Your task to perform on an android device: open app "McDonald's" (install if not already installed) and go to login screen Image 0: 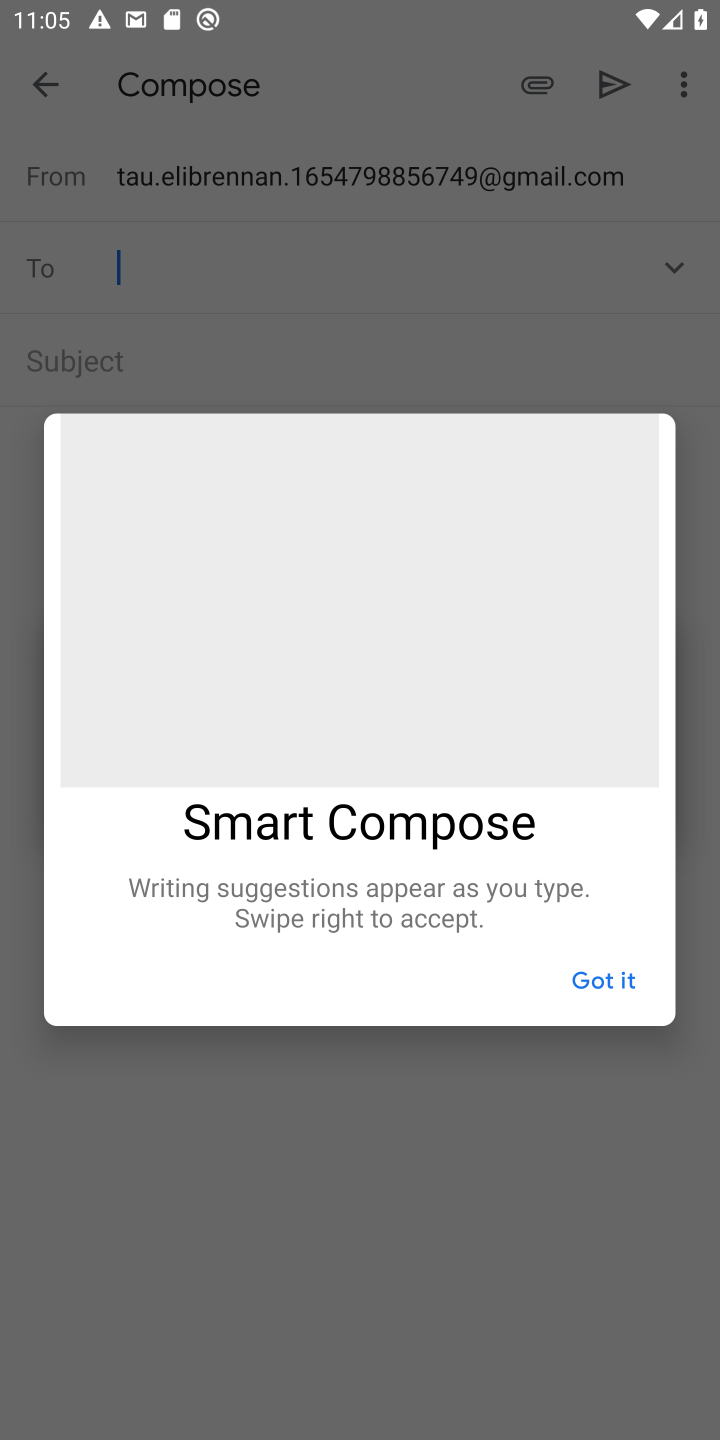
Step 0: press home button
Your task to perform on an android device: open app "McDonald's" (install if not already installed) and go to login screen Image 1: 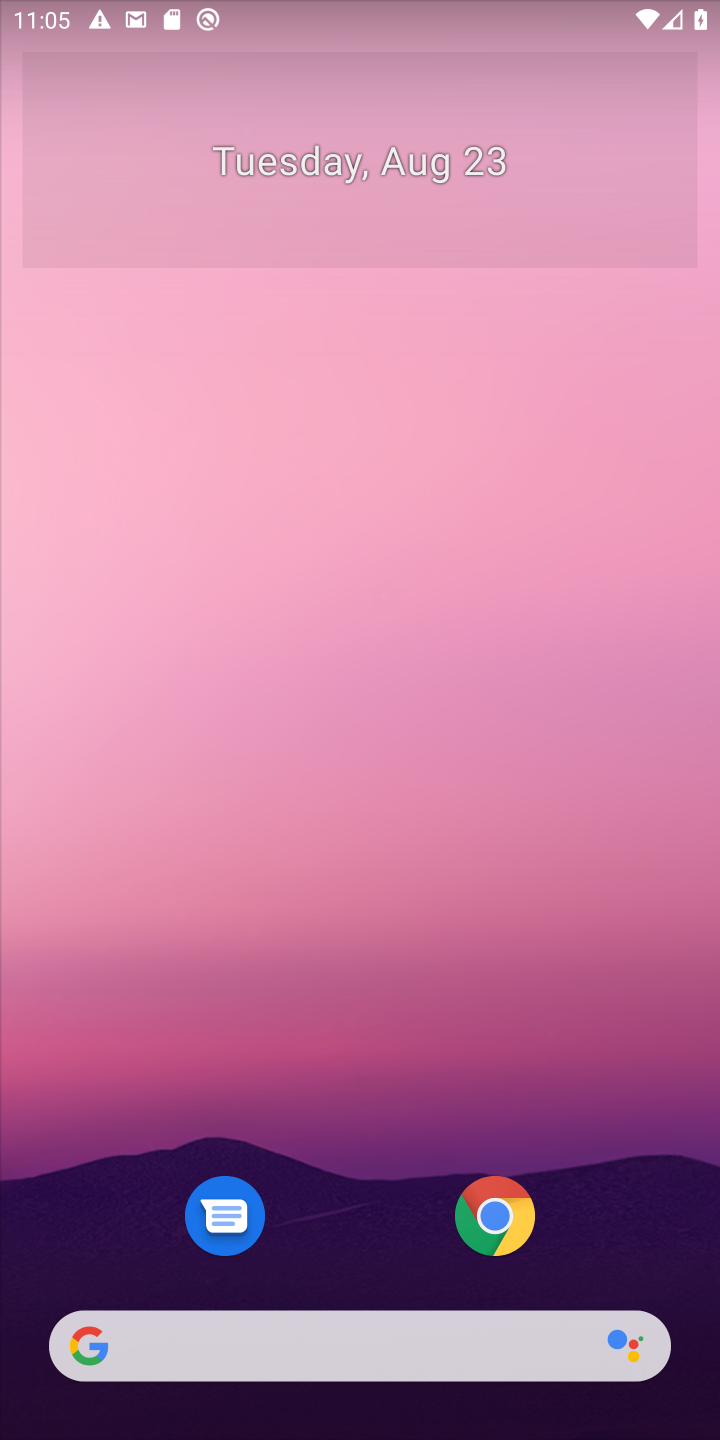
Step 1: drag from (338, 1328) to (481, 206)
Your task to perform on an android device: open app "McDonald's" (install if not already installed) and go to login screen Image 2: 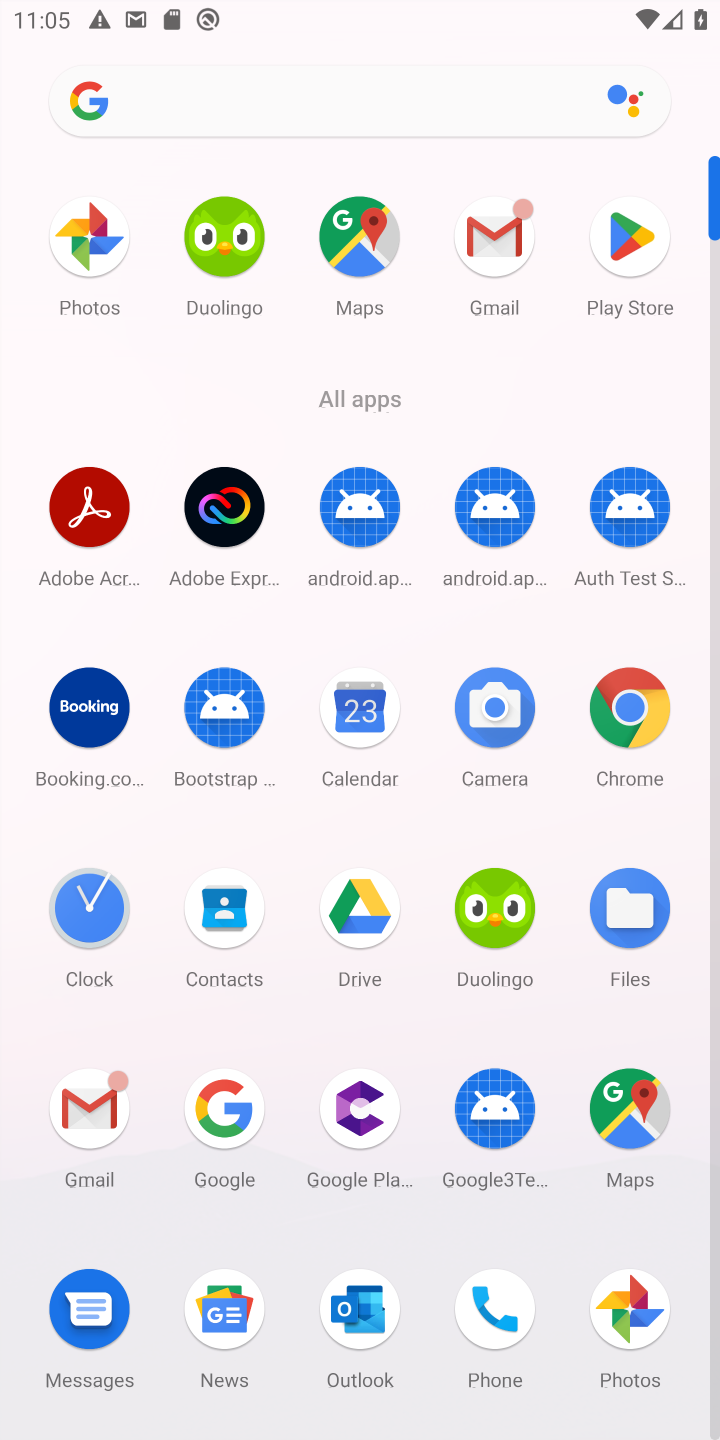
Step 2: click (630, 246)
Your task to perform on an android device: open app "McDonald's" (install if not already installed) and go to login screen Image 3: 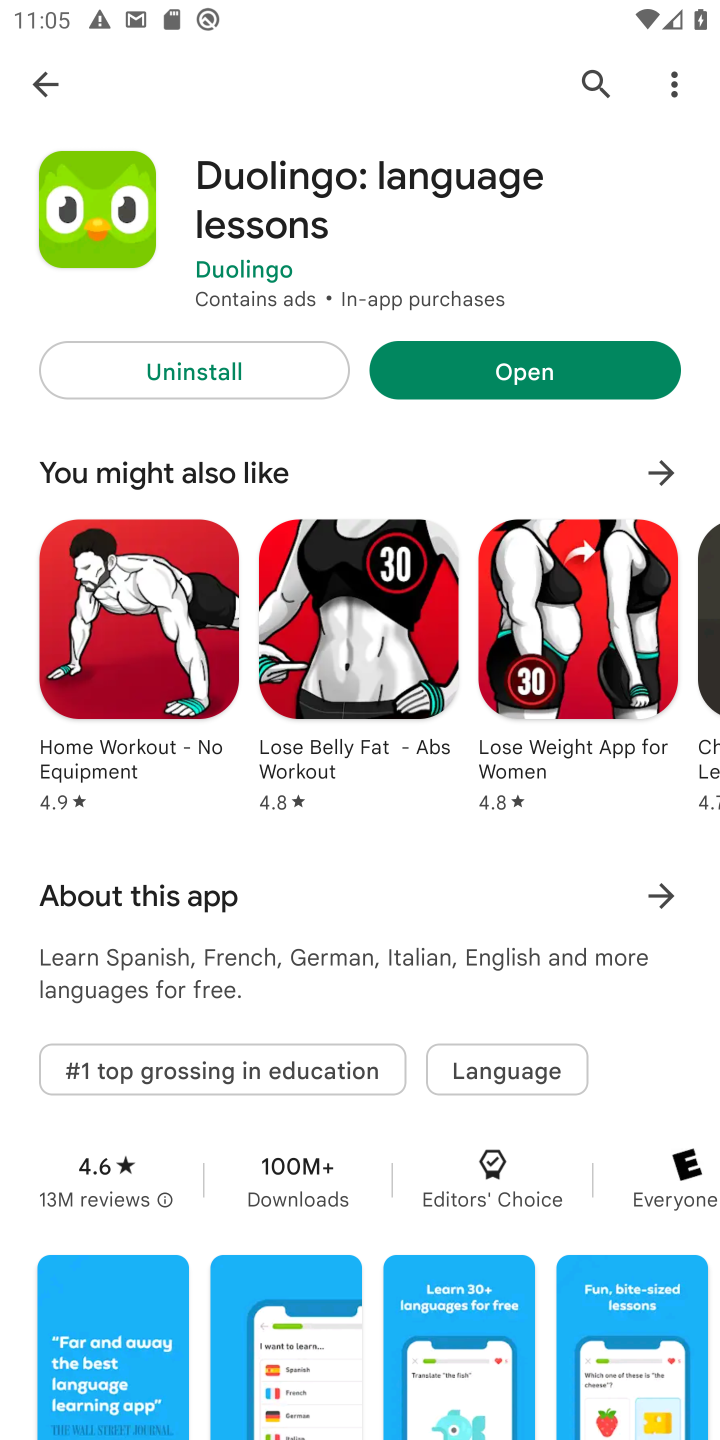
Step 3: press back button
Your task to perform on an android device: open app "McDonald's" (install if not already installed) and go to login screen Image 4: 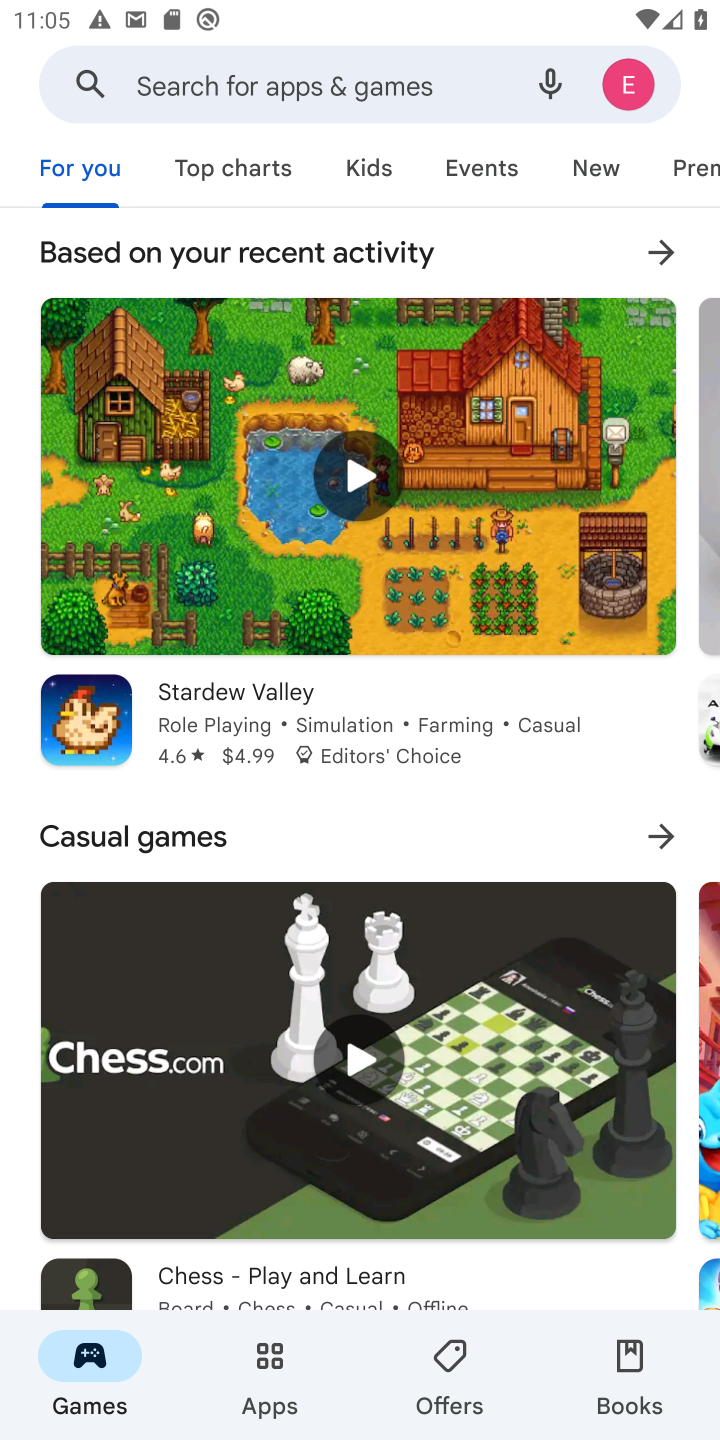
Step 4: click (390, 98)
Your task to perform on an android device: open app "McDonald's" (install if not already installed) and go to login screen Image 5: 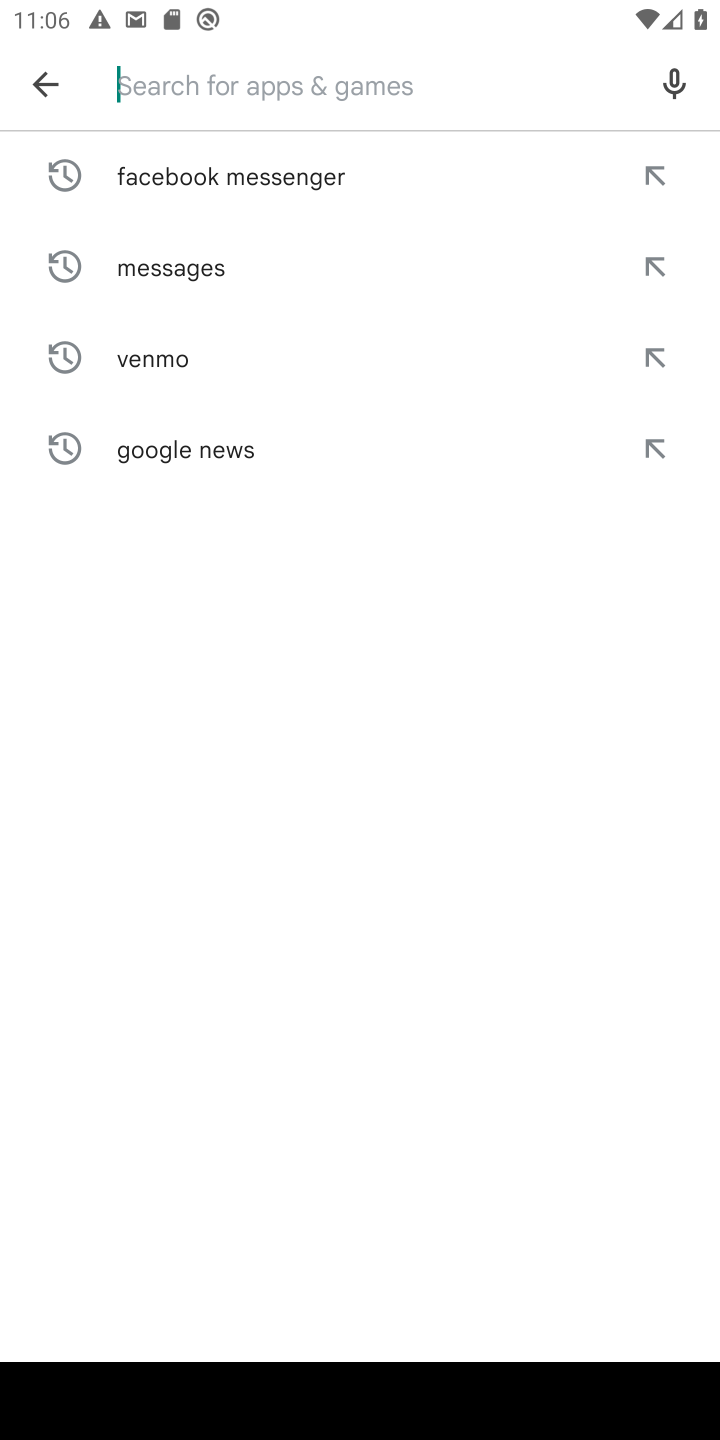
Step 5: type "McDonald's"
Your task to perform on an android device: open app "McDonald's" (install if not already installed) and go to login screen Image 6: 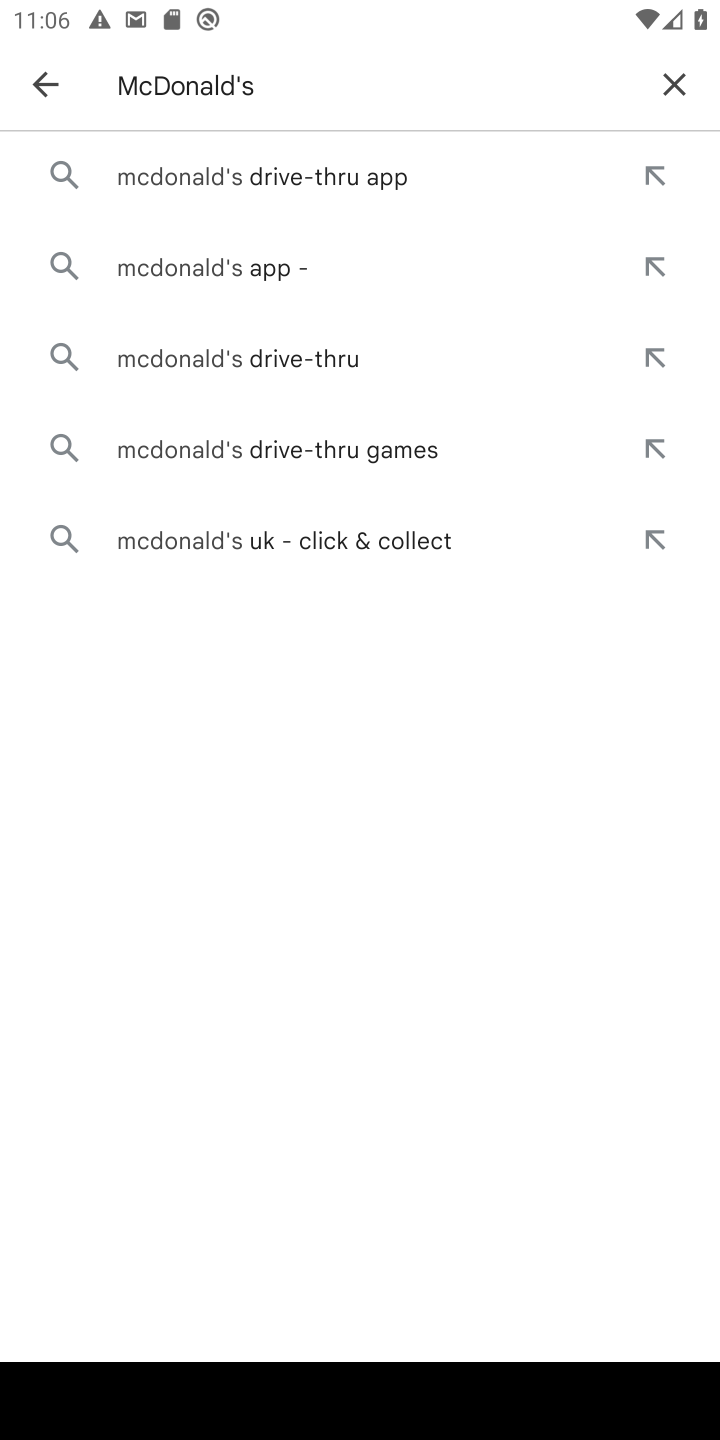
Step 6: click (150, 258)
Your task to perform on an android device: open app "McDonald's" (install if not already installed) and go to login screen Image 7: 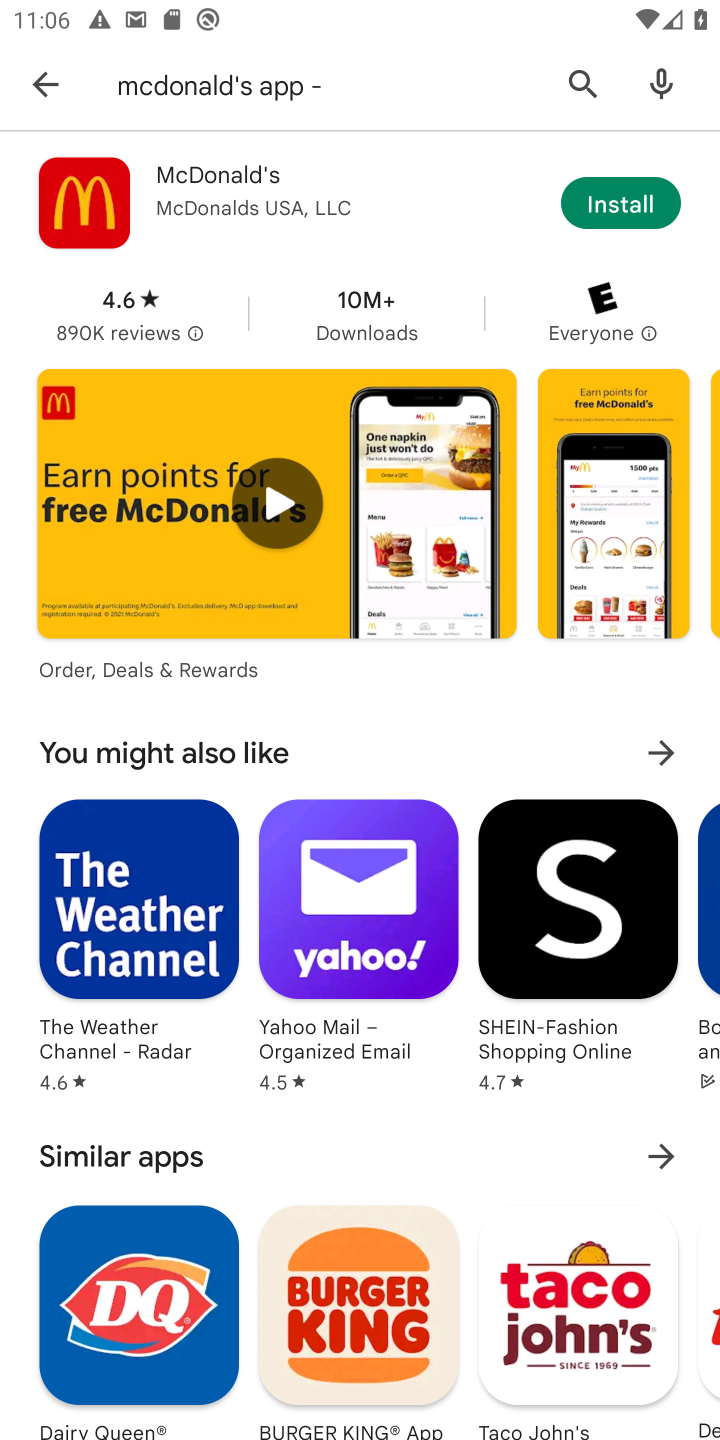
Step 7: click (615, 213)
Your task to perform on an android device: open app "McDonald's" (install if not already installed) and go to login screen Image 8: 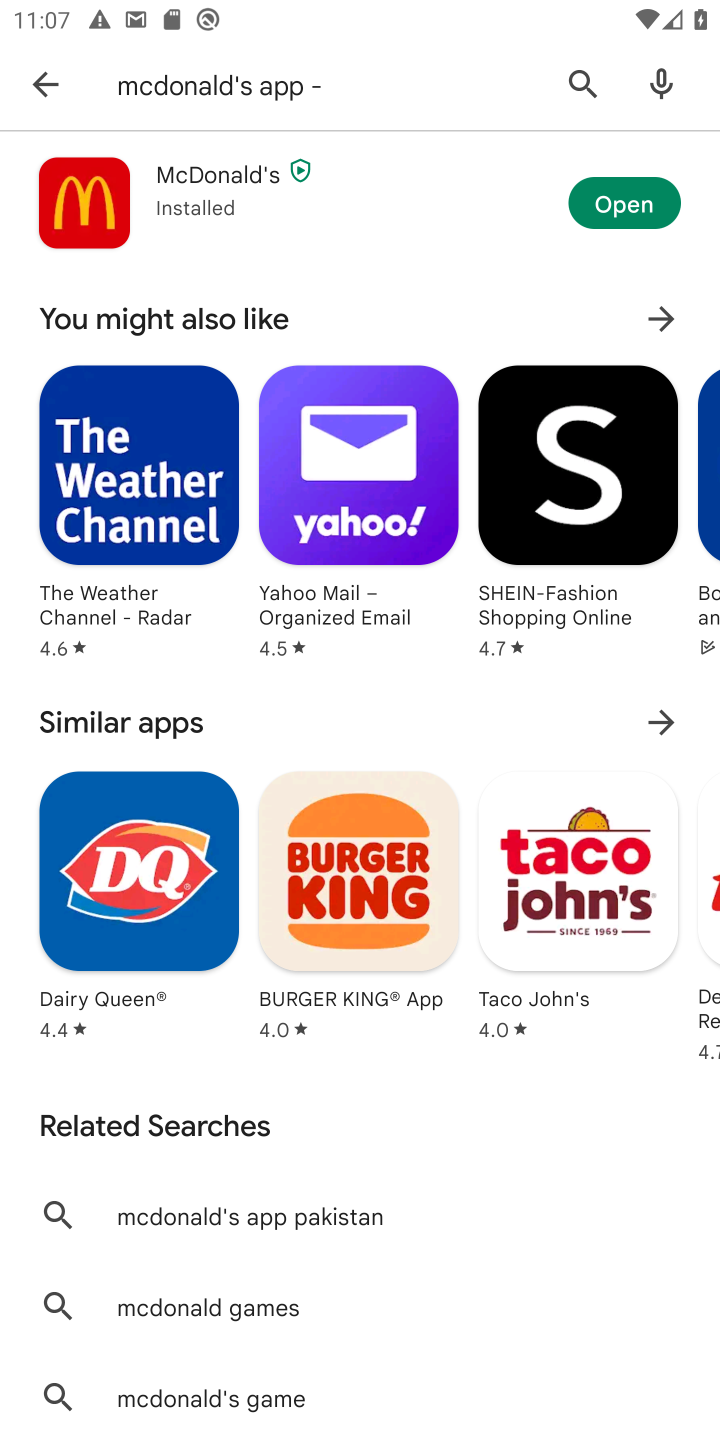
Step 8: click (610, 211)
Your task to perform on an android device: open app "McDonald's" (install if not already installed) and go to login screen Image 9: 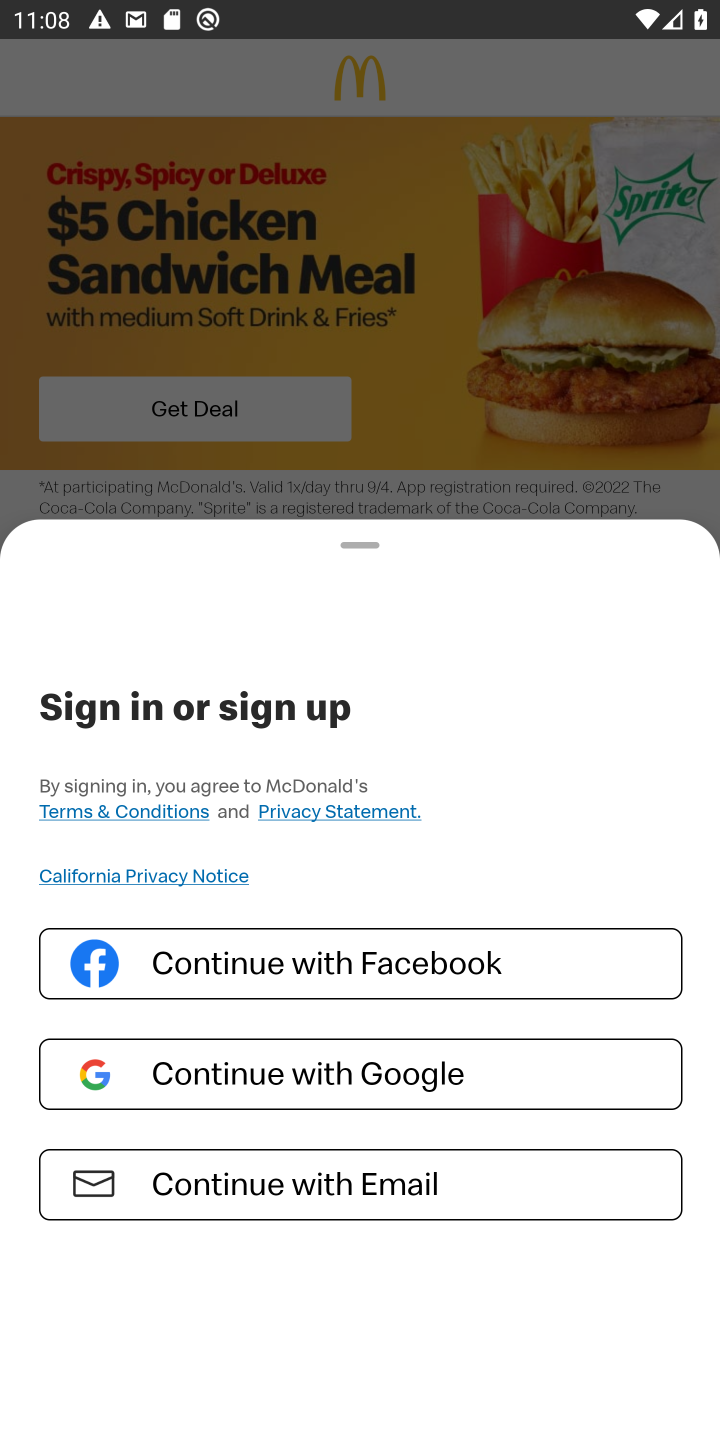
Step 9: click (327, 1176)
Your task to perform on an android device: open app "McDonald's" (install if not already installed) and go to login screen Image 10: 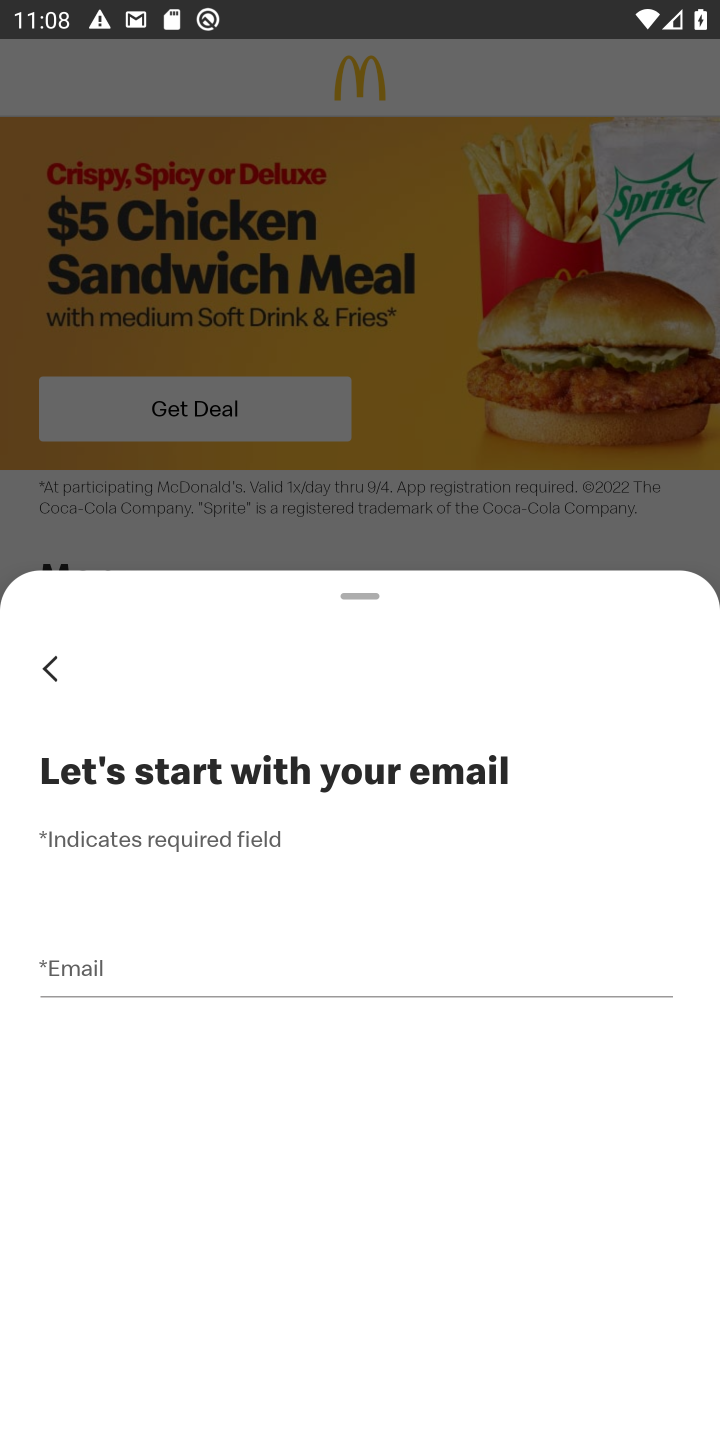
Step 10: task complete